Your task to perform on an android device: Go to accessibility settings Image 0: 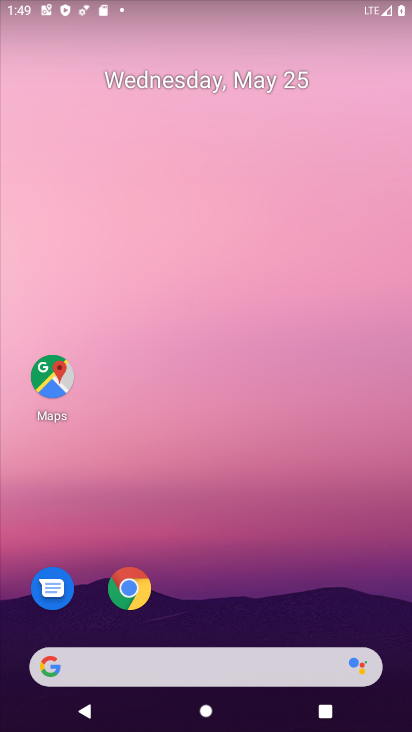
Step 0: drag from (261, 623) to (243, 27)
Your task to perform on an android device: Go to accessibility settings Image 1: 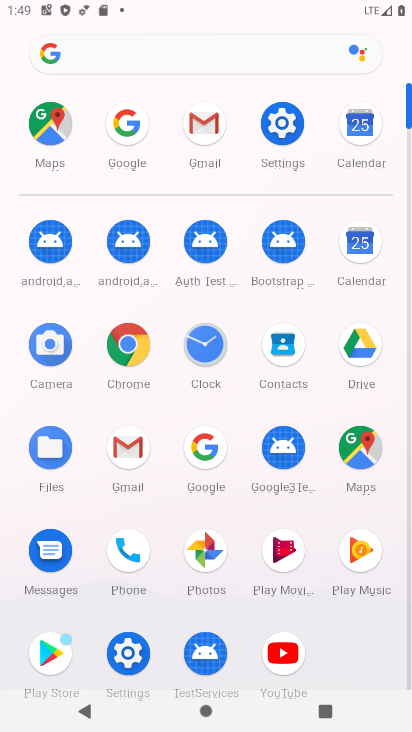
Step 1: click (278, 128)
Your task to perform on an android device: Go to accessibility settings Image 2: 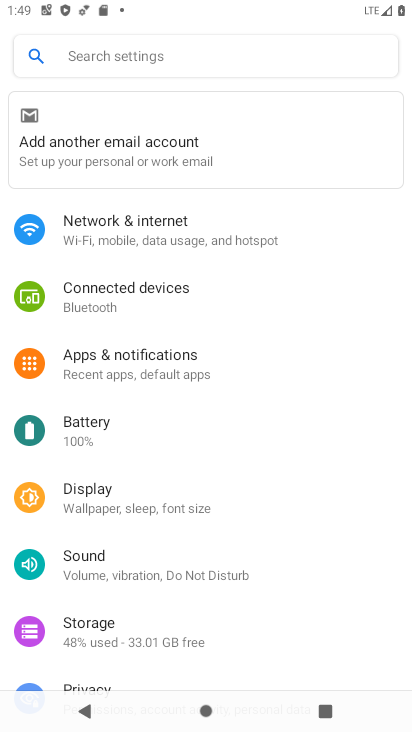
Step 2: drag from (260, 540) to (263, 63)
Your task to perform on an android device: Go to accessibility settings Image 3: 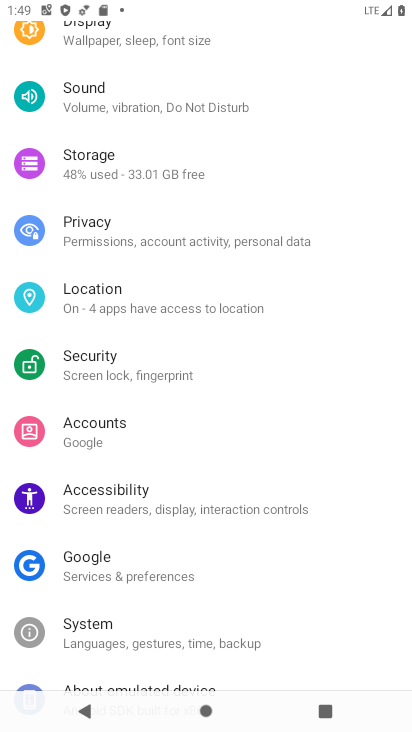
Step 3: click (121, 497)
Your task to perform on an android device: Go to accessibility settings Image 4: 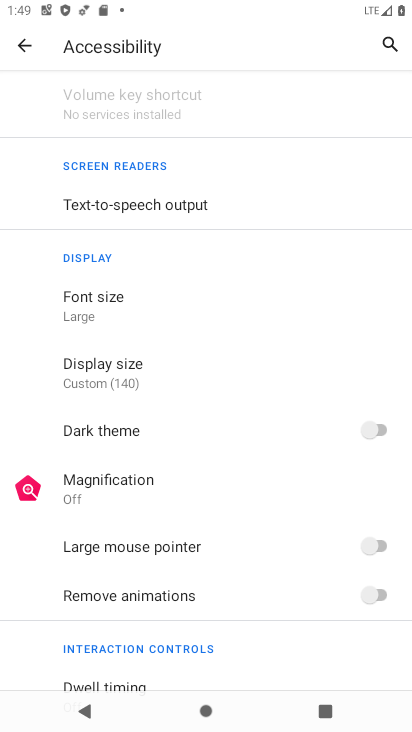
Step 4: task complete